Your task to perform on an android device: Show the shopping cart on walmart.com. Add logitech g pro to the cart on walmart.com, then select checkout. Image 0: 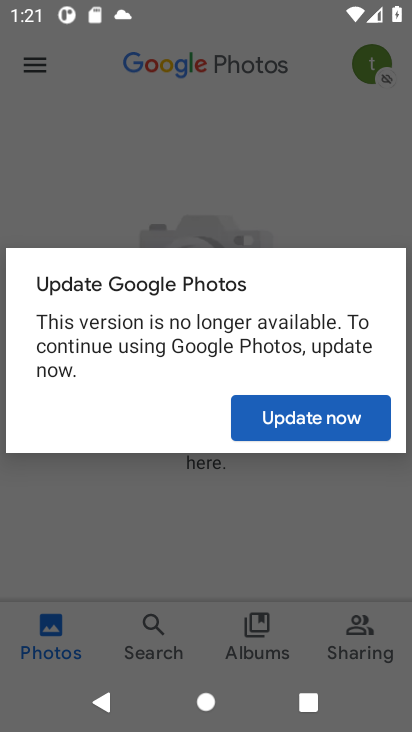
Step 0: press home button
Your task to perform on an android device: Show the shopping cart on walmart.com. Add logitech g pro to the cart on walmart.com, then select checkout. Image 1: 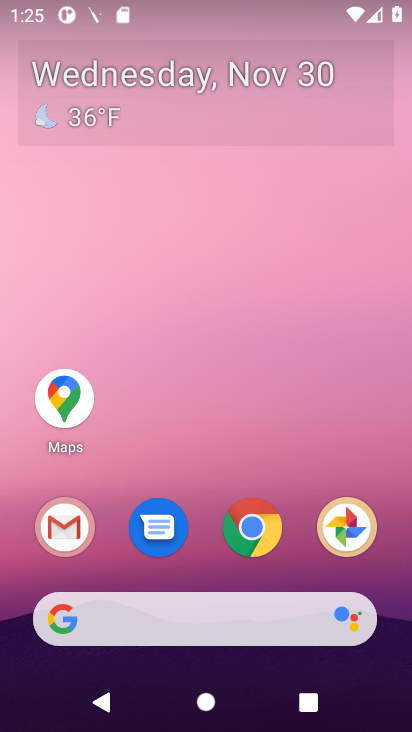
Step 1: click (211, 645)
Your task to perform on an android device: Show the shopping cart on walmart.com. Add logitech g pro to the cart on walmart.com, then select checkout. Image 2: 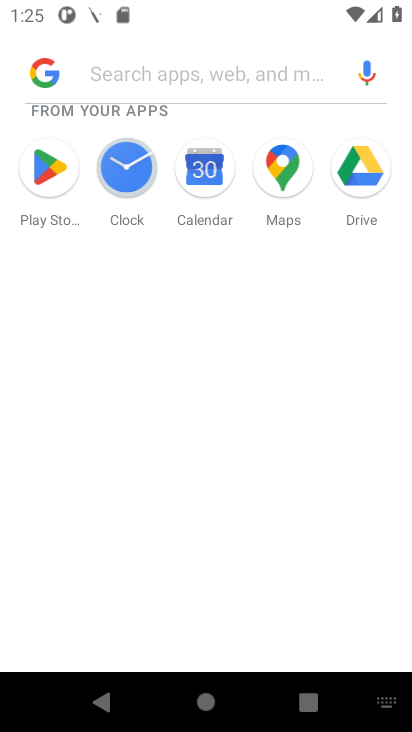
Step 2: press home button
Your task to perform on an android device: Show the shopping cart on walmart.com. Add logitech g pro to the cart on walmart.com, then select checkout. Image 3: 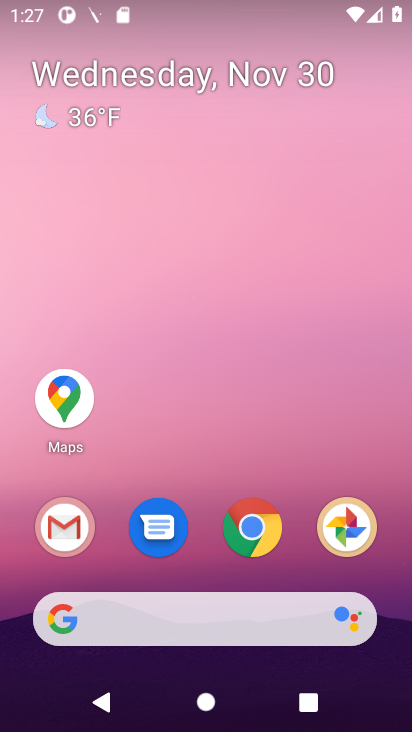
Step 3: click (259, 546)
Your task to perform on an android device: Show the shopping cart on walmart.com. Add logitech g pro to the cart on walmart.com, then select checkout. Image 4: 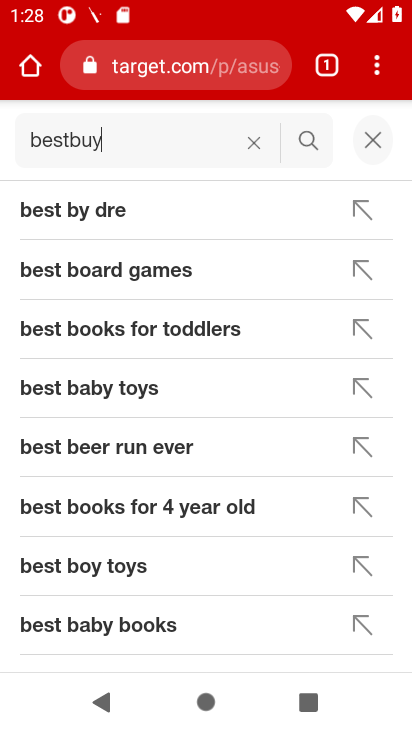
Step 4: click (230, 83)
Your task to perform on an android device: Show the shopping cart on walmart.com. Add logitech g pro to the cart on walmart.com, then select checkout. Image 5: 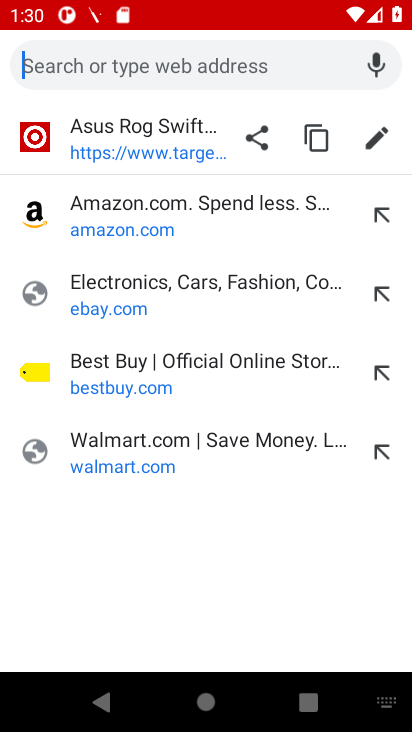
Step 5: click (170, 462)
Your task to perform on an android device: Show the shopping cart on walmart.com. Add logitech g pro to the cart on walmart.com, then select checkout. Image 6: 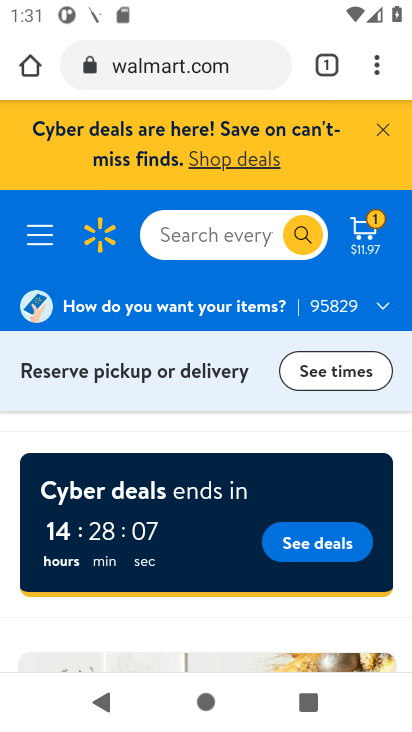
Step 6: task complete